Your task to perform on an android device: turn on javascript in the chrome app Image 0: 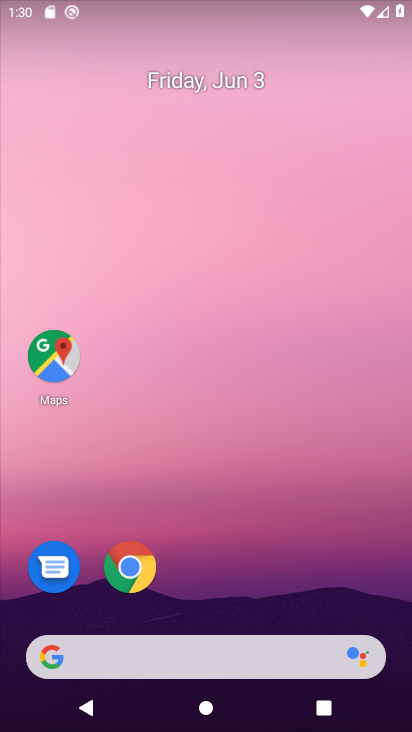
Step 0: click (115, 557)
Your task to perform on an android device: turn on javascript in the chrome app Image 1: 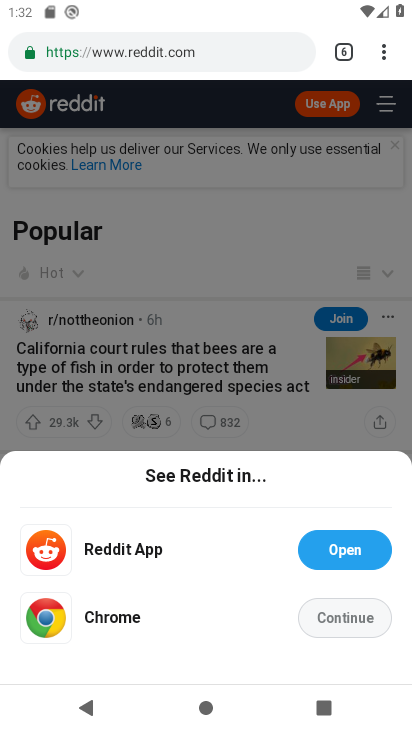
Step 1: click (383, 57)
Your task to perform on an android device: turn on javascript in the chrome app Image 2: 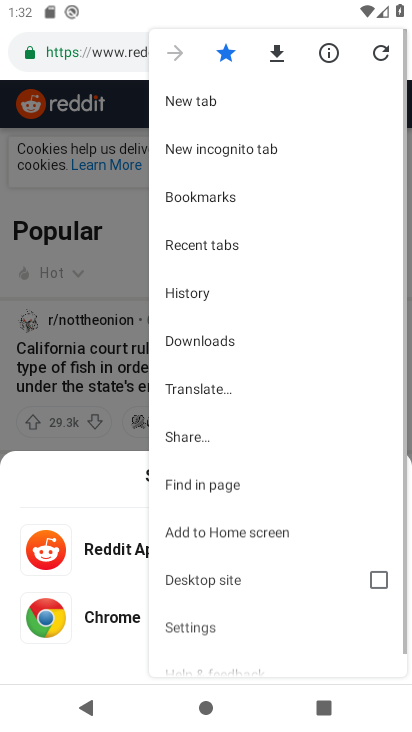
Step 2: click (383, 57)
Your task to perform on an android device: turn on javascript in the chrome app Image 3: 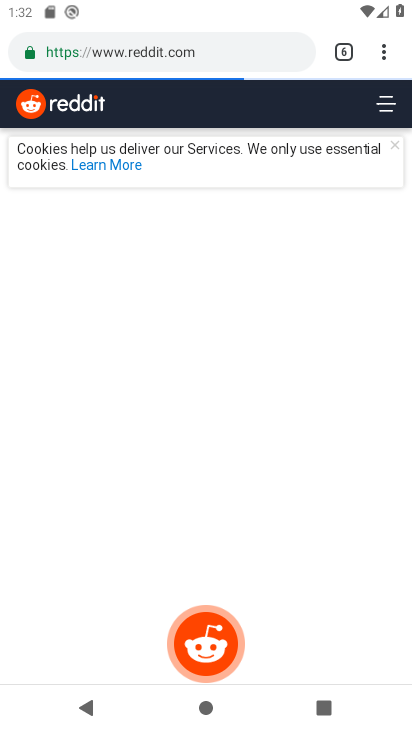
Step 3: task complete